Your task to perform on an android device: allow notifications from all sites in the chrome app Image 0: 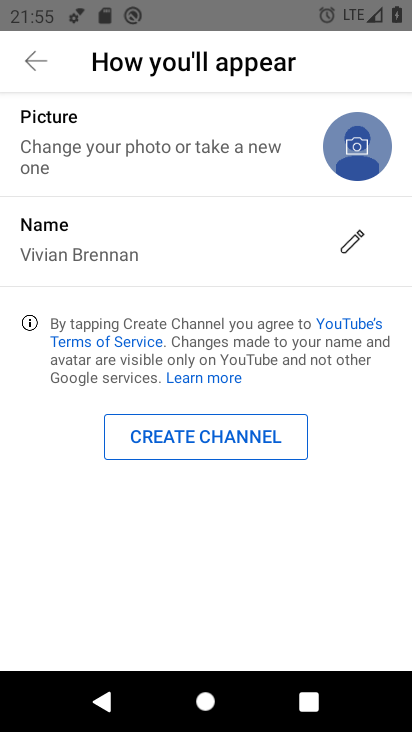
Step 0: press home button
Your task to perform on an android device: allow notifications from all sites in the chrome app Image 1: 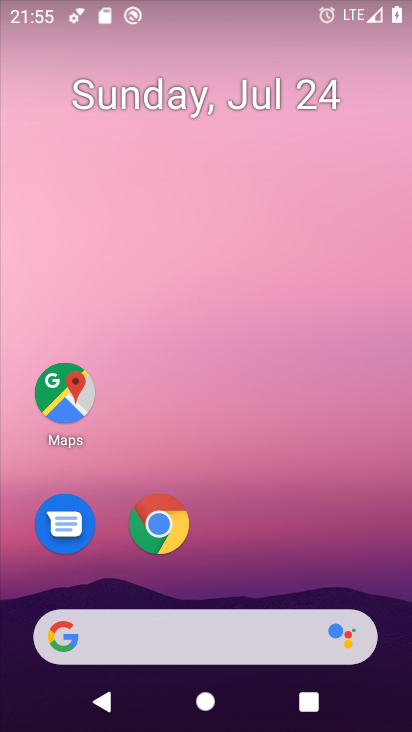
Step 1: click (163, 520)
Your task to perform on an android device: allow notifications from all sites in the chrome app Image 2: 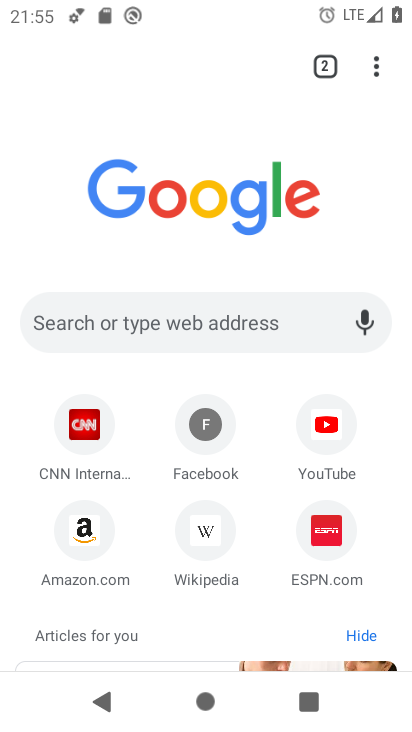
Step 2: click (374, 60)
Your task to perform on an android device: allow notifications from all sites in the chrome app Image 3: 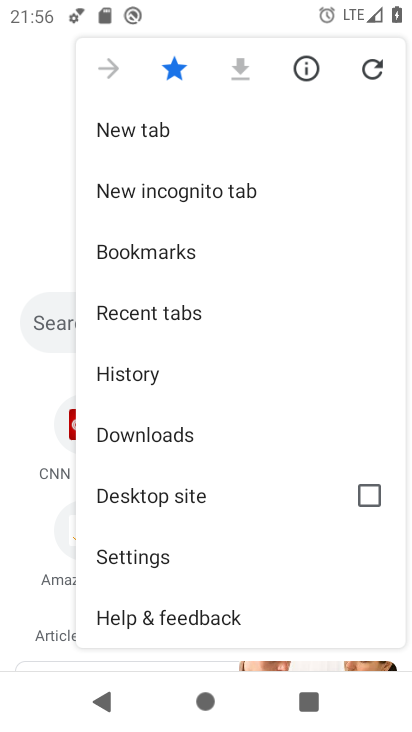
Step 3: click (165, 561)
Your task to perform on an android device: allow notifications from all sites in the chrome app Image 4: 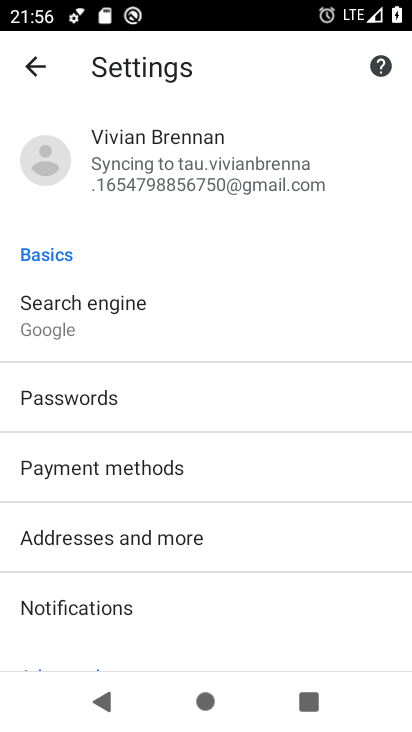
Step 4: click (168, 598)
Your task to perform on an android device: allow notifications from all sites in the chrome app Image 5: 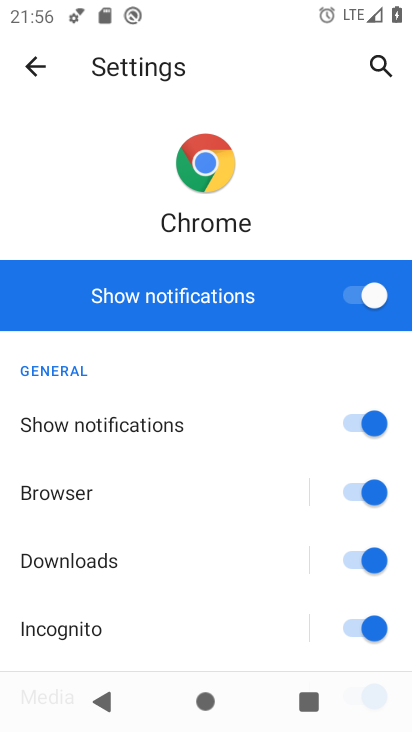
Step 5: task complete